Your task to perform on an android device: Show me popular games on the Play Store Image 0: 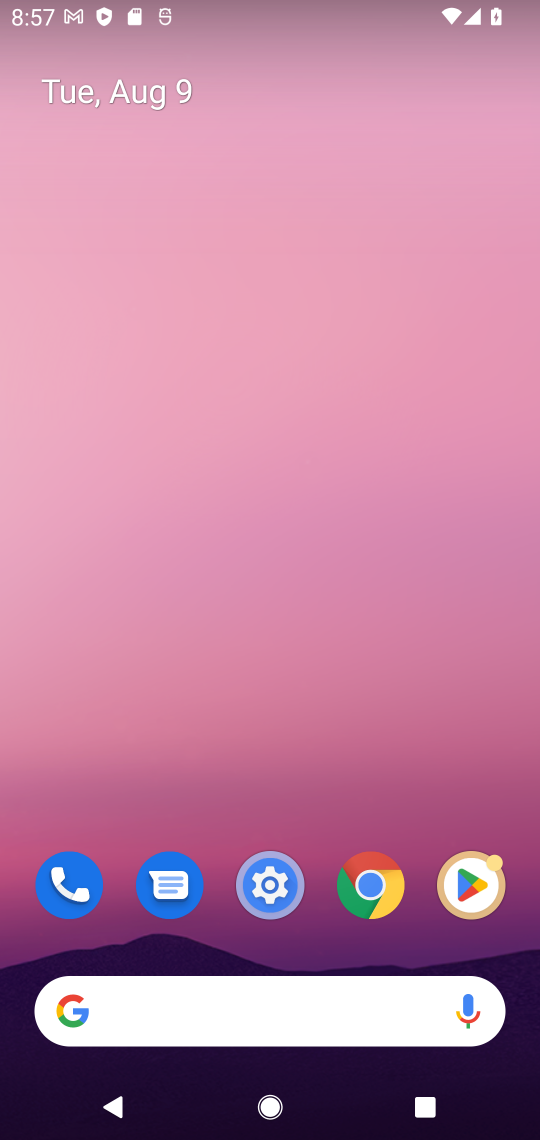
Step 0: click (480, 880)
Your task to perform on an android device: Show me popular games on the Play Store Image 1: 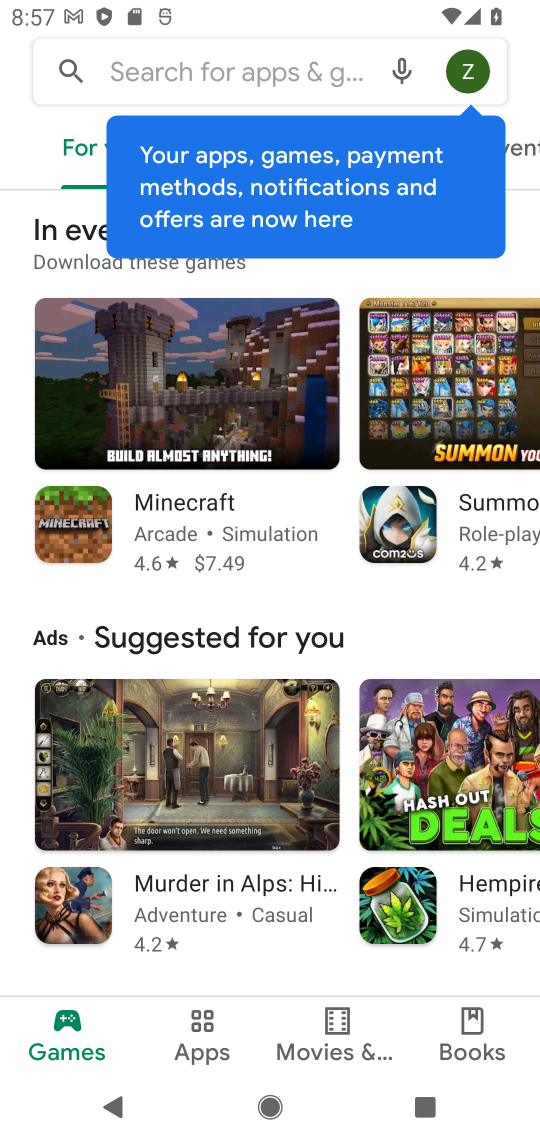
Step 1: drag from (231, 324) to (252, 868)
Your task to perform on an android device: Show me popular games on the Play Store Image 2: 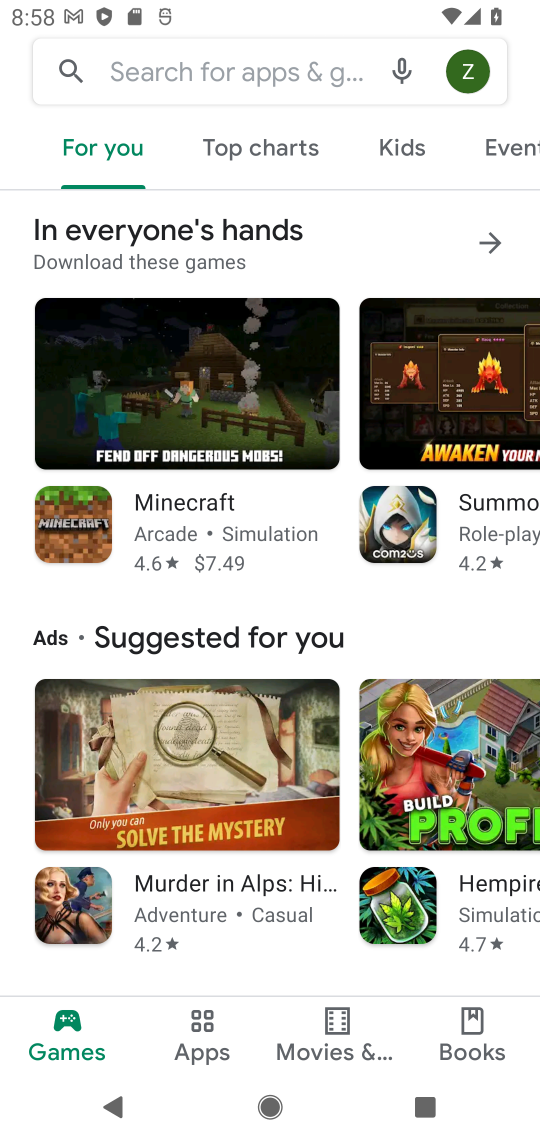
Step 2: click (298, 144)
Your task to perform on an android device: Show me popular games on the Play Store Image 3: 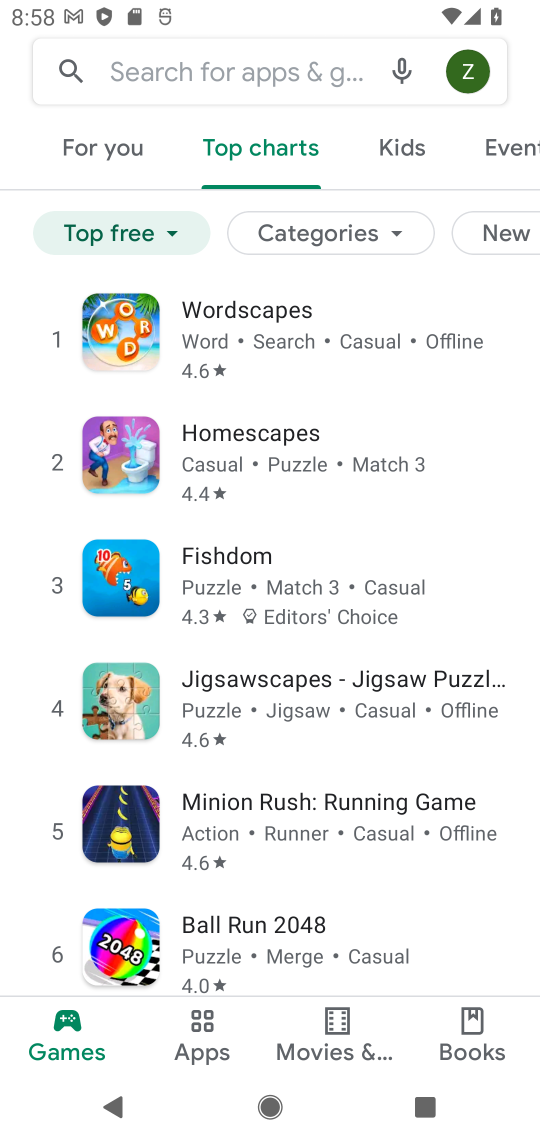
Step 3: task complete